Your task to perform on an android device: toggle location history Image 0: 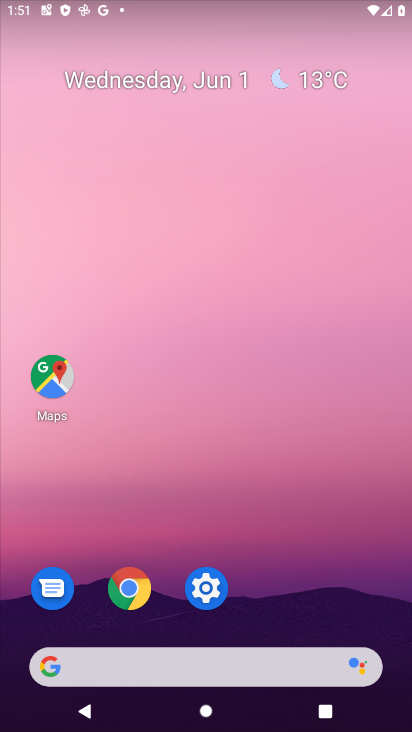
Step 0: click (190, 586)
Your task to perform on an android device: toggle location history Image 1: 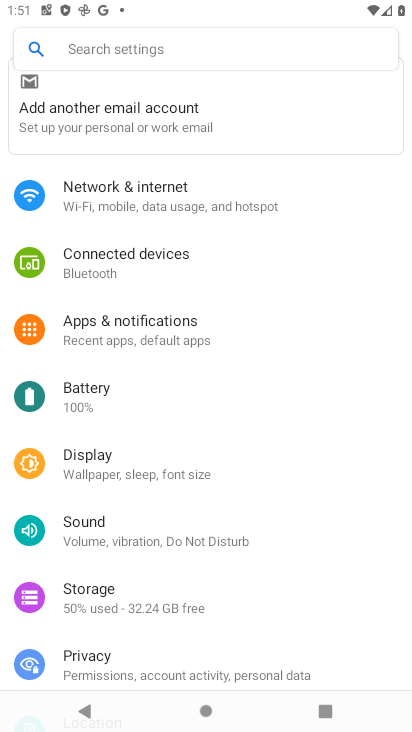
Step 1: drag from (122, 641) to (144, 572)
Your task to perform on an android device: toggle location history Image 2: 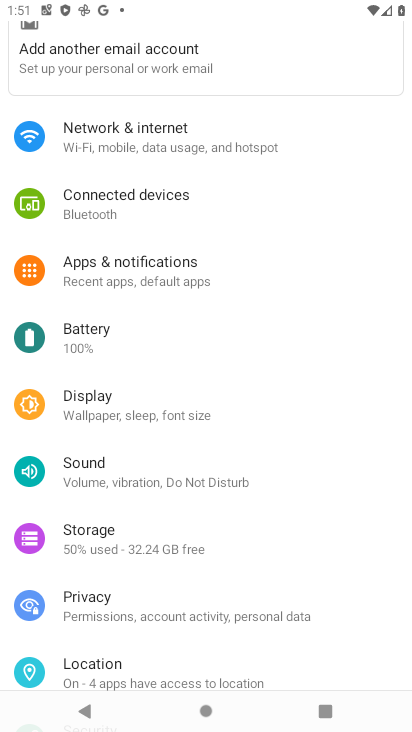
Step 2: click (84, 635)
Your task to perform on an android device: toggle location history Image 3: 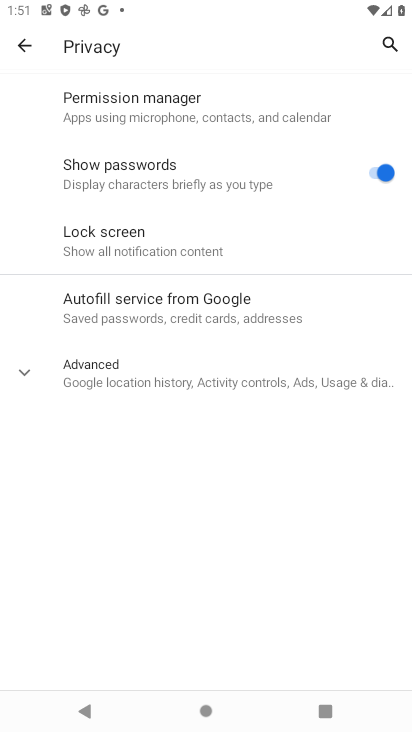
Step 3: click (23, 46)
Your task to perform on an android device: toggle location history Image 4: 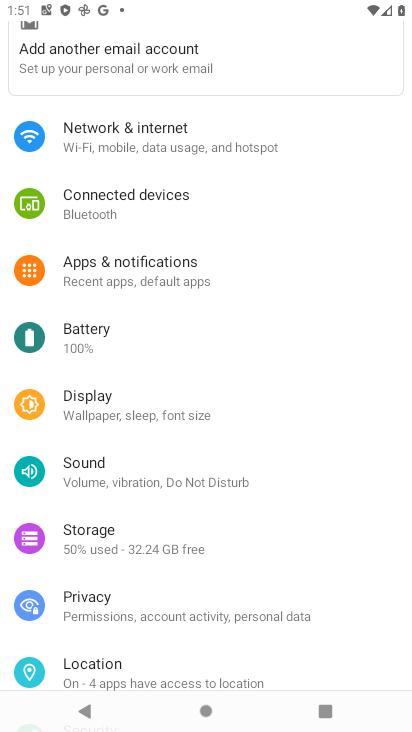
Step 4: click (134, 667)
Your task to perform on an android device: toggle location history Image 5: 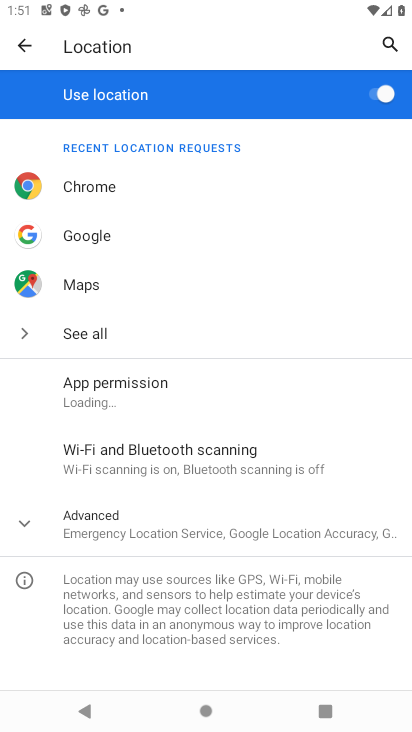
Step 5: click (46, 513)
Your task to perform on an android device: toggle location history Image 6: 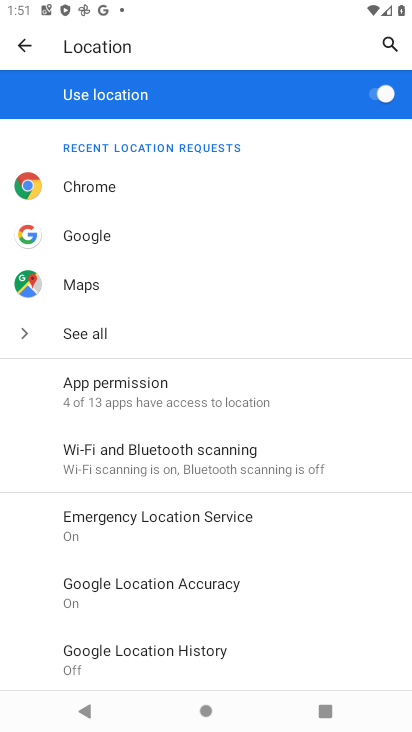
Step 6: click (140, 645)
Your task to perform on an android device: toggle location history Image 7: 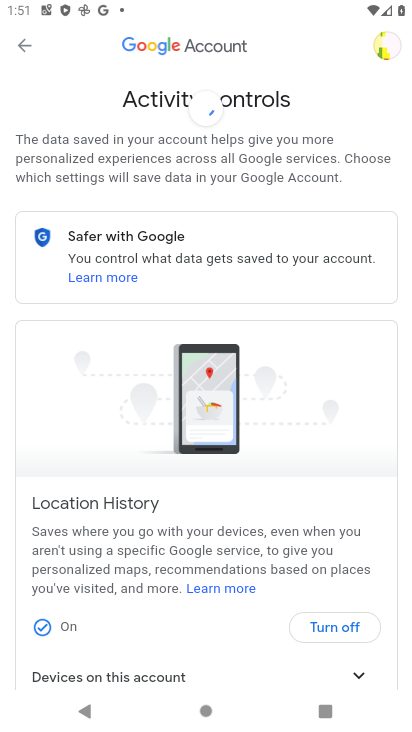
Step 7: click (171, 417)
Your task to perform on an android device: toggle location history Image 8: 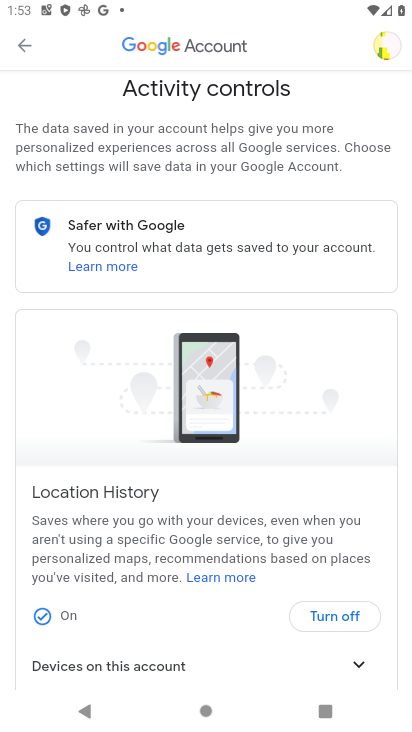
Step 8: task complete